Your task to perform on an android device: Open display settings Image 0: 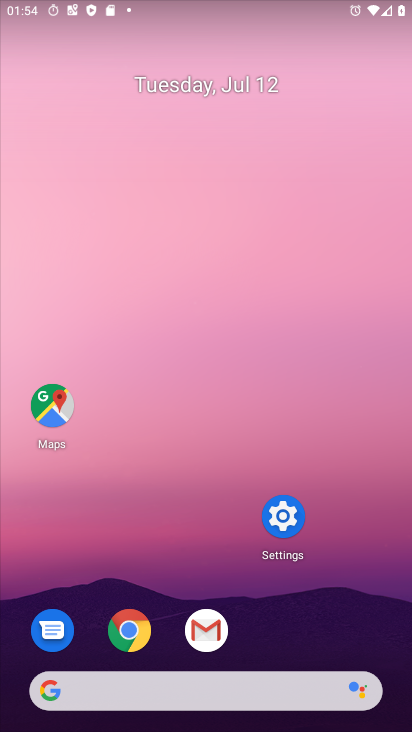
Step 0: click (286, 520)
Your task to perform on an android device: Open display settings Image 1: 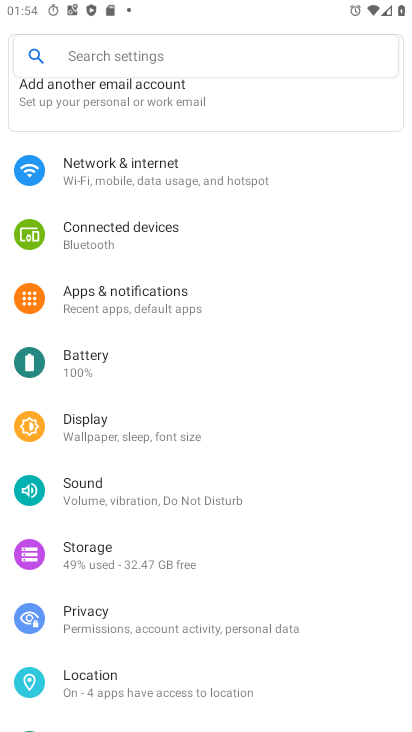
Step 1: click (99, 417)
Your task to perform on an android device: Open display settings Image 2: 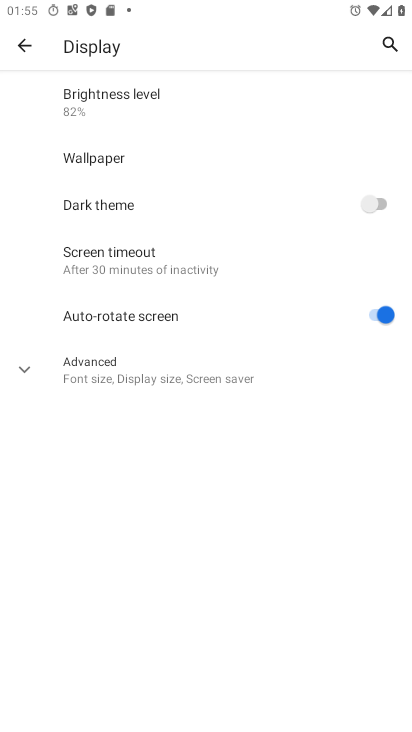
Step 2: click (24, 371)
Your task to perform on an android device: Open display settings Image 3: 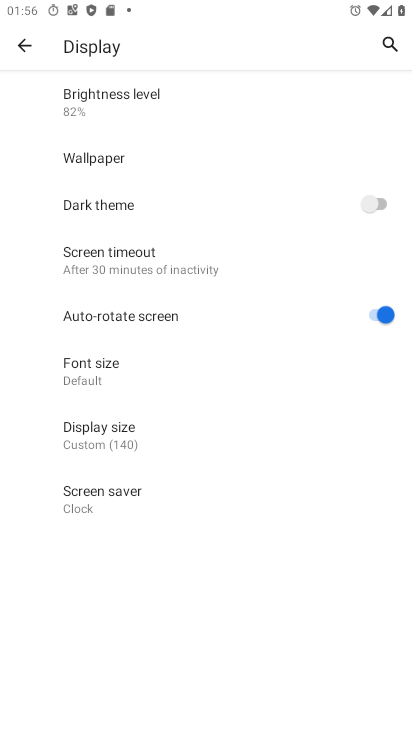
Step 3: task complete